Your task to perform on an android device: open sync settings in chrome Image 0: 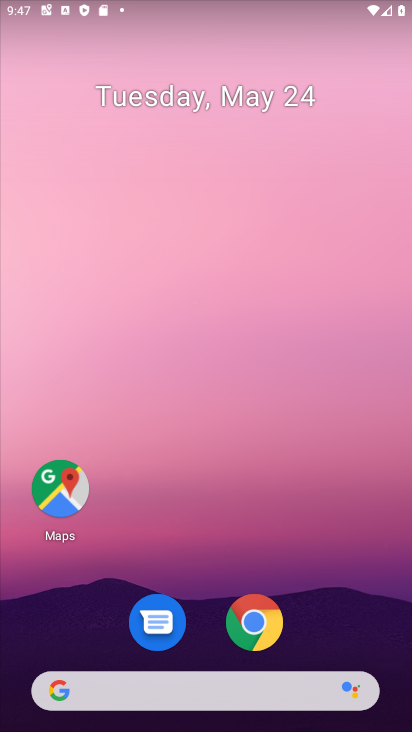
Step 0: press home button
Your task to perform on an android device: open sync settings in chrome Image 1: 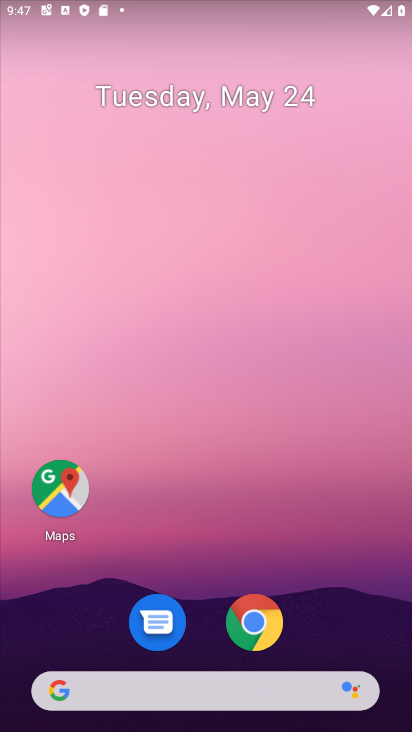
Step 1: drag from (251, 716) to (351, 85)
Your task to perform on an android device: open sync settings in chrome Image 2: 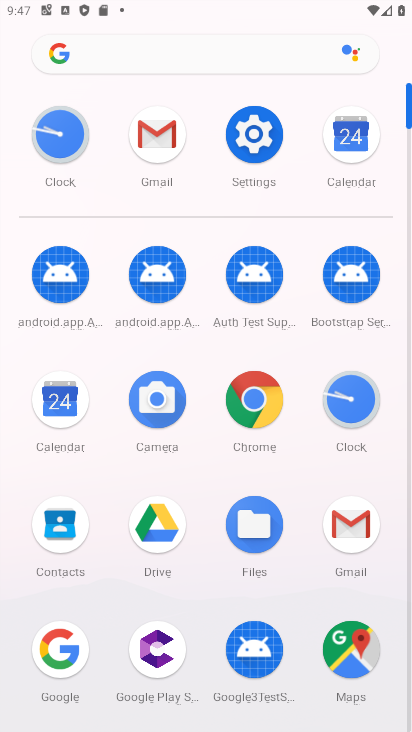
Step 2: click (250, 407)
Your task to perform on an android device: open sync settings in chrome Image 3: 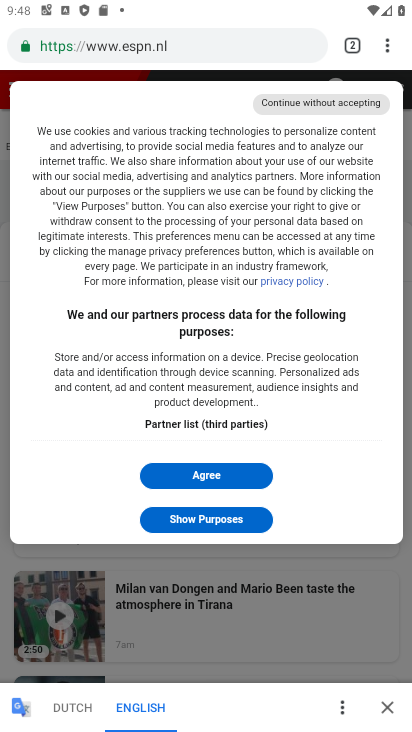
Step 3: click (240, 464)
Your task to perform on an android device: open sync settings in chrome Image 4: 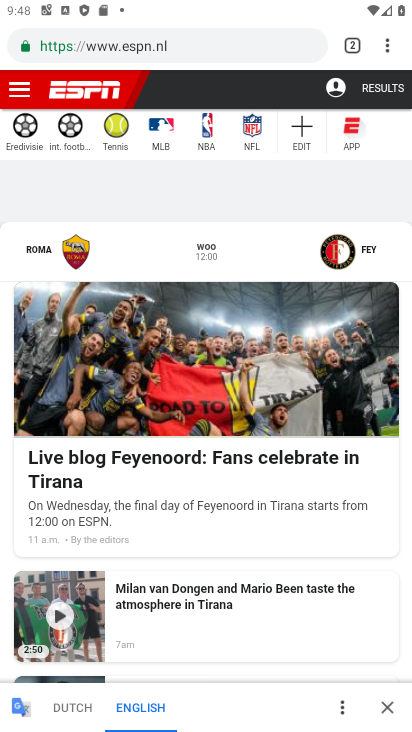
Step 4: click (377, 46)
Your task to perform on an android device: open sync settings in chrome Image 5: 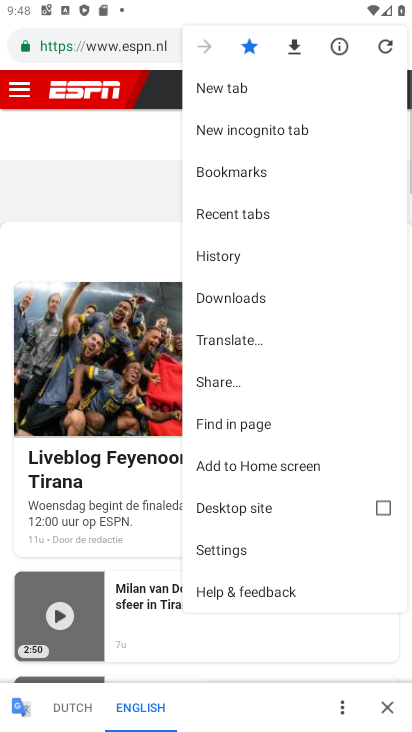
Step 5: click (227, 548)
Your task to perform on an android device: open sync settings in chrome Image 6: 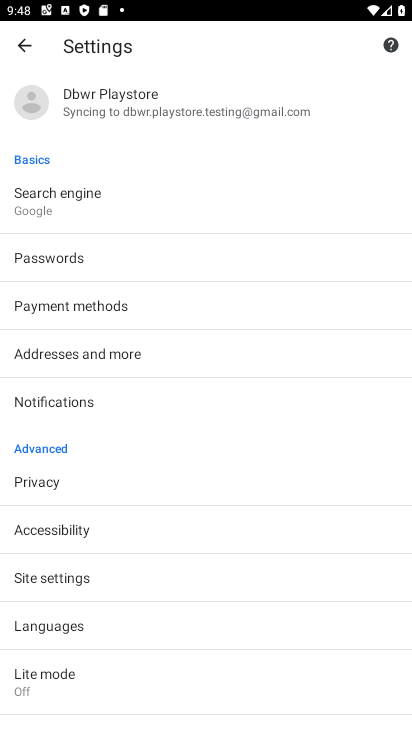
Step 6: click (61, 583)
Your task to perform on an android device: open sync settings in chrome Image 7: 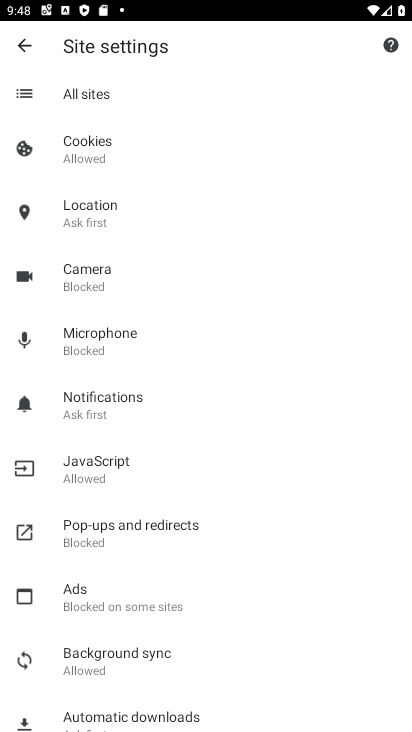
Step 7: click (111, 645)
Your task to perform on an android device: open sync settings in chrome Image 8: 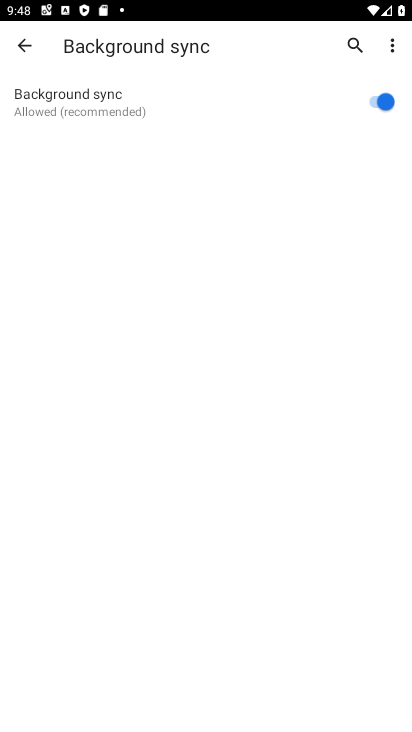
Step 8: task complete